Your task to perform on an android device: toggle data saver in the chrome app Image 0: 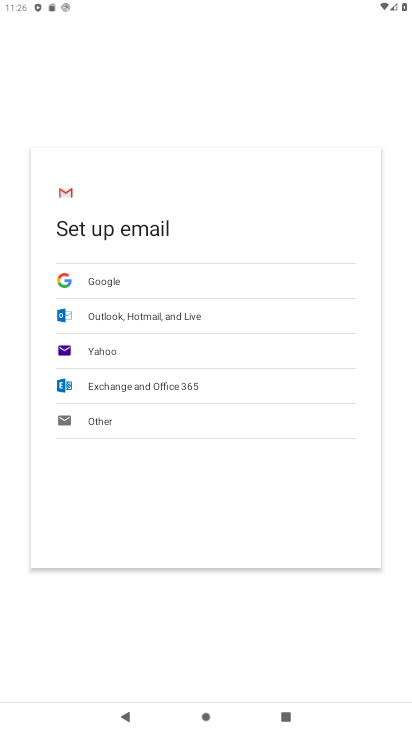
Step 0: press home button
Your task to perform on an android device: toggle data saver in the chrome app Image 1: 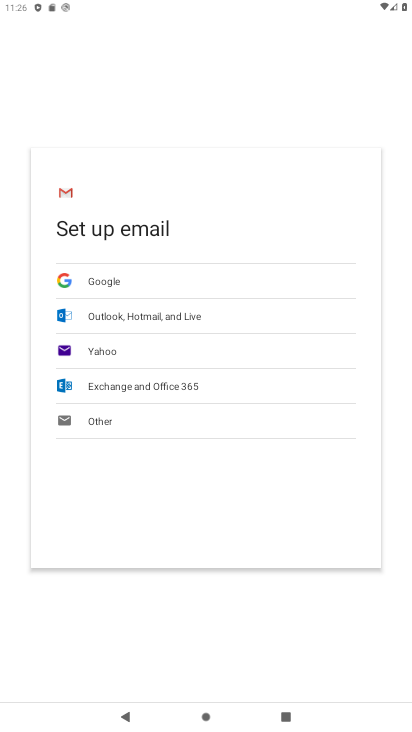
Step 1: press home button
Your task to perform on an android device: toggle data saver in the chrome app Image 2: 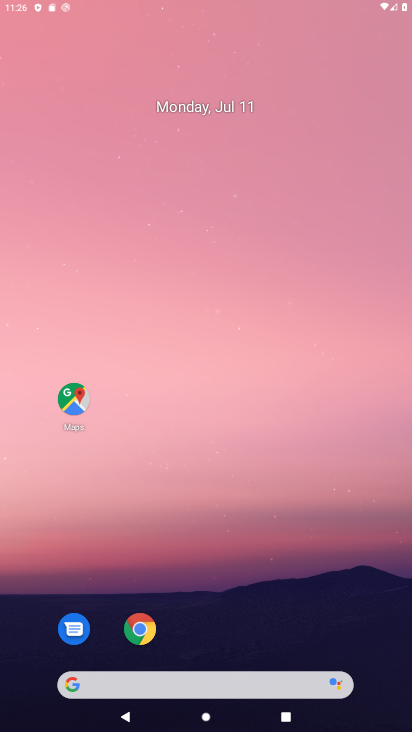
Step 2: press home button
Your task to perform on an android device: toggle data saver in the chrome app Image 3: 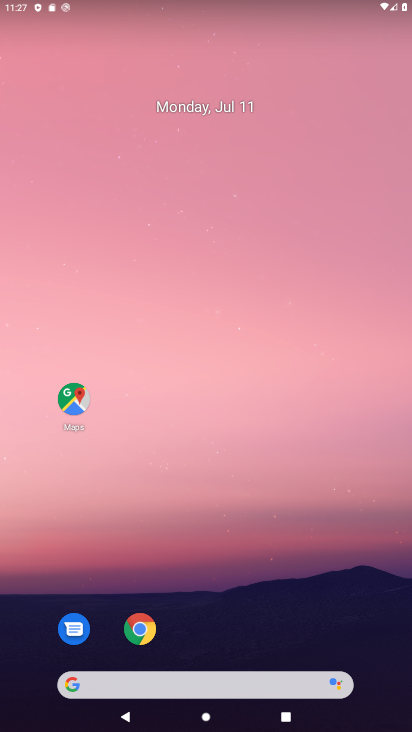
Step 3: drag from (282, 468) to (271, 181)
Your task to perform on an android device: toggle data saver in the chrome app Image 4: 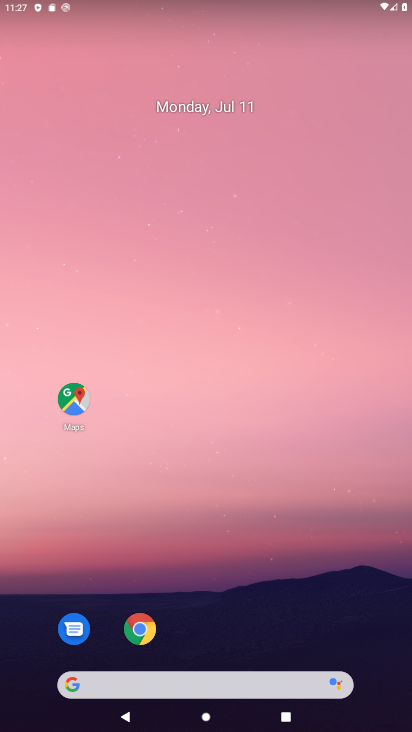
Step 4: drag from (229, 643) to (220, 583)
Your task to perform on an android device: toggle data saver in the chrome app Image 5: 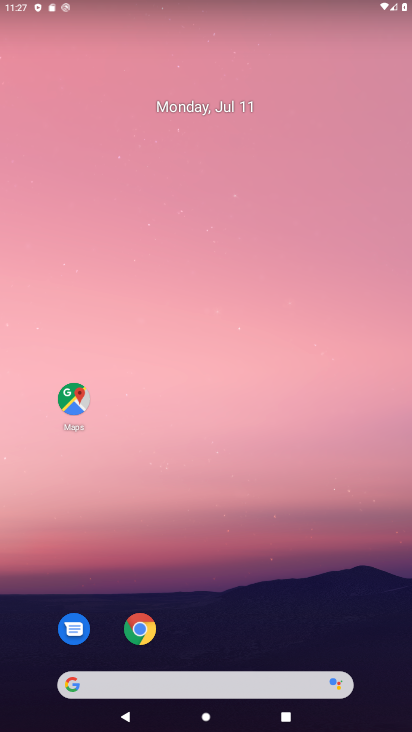
Step 5: click (127, 632)
Your task to perform on an android device: toggle data saver in the chrome app Image 6: 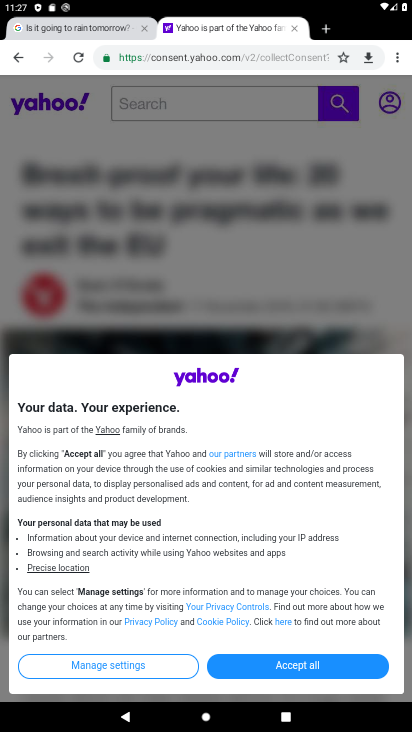
Step 6: click (238, 62)
Your task to perform on an android device: toggle data saver in the chrome app Image 7: 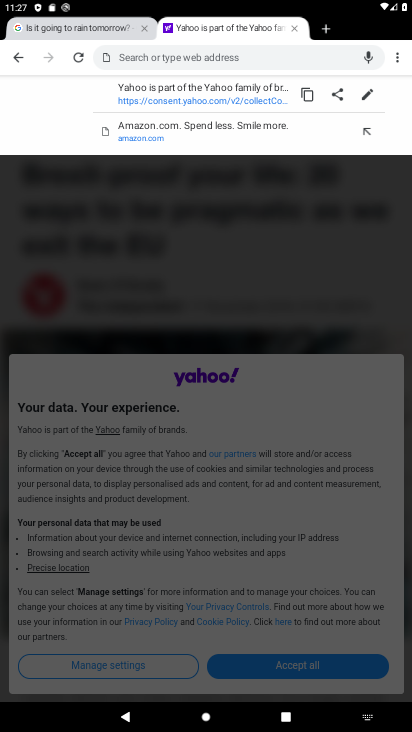
Step 7: click (229, 388)
Your task to perform on an android device: toggle data saver in the chrome app Image 8: 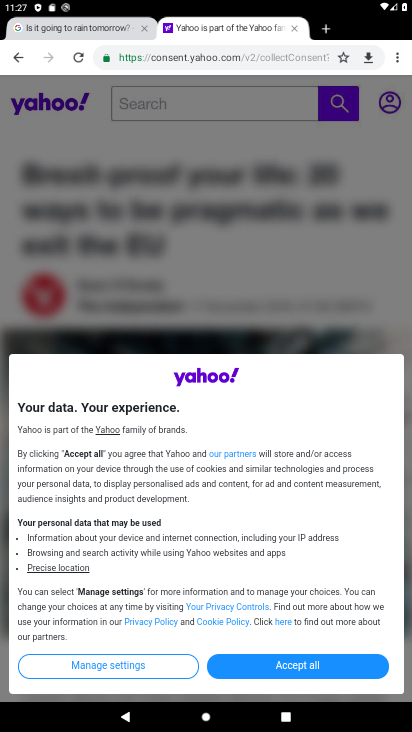
Step 8: drag from (411, 57) to (277, 412)
Your task to perform on an android device: toggle data saver in the chrome app Image 9: 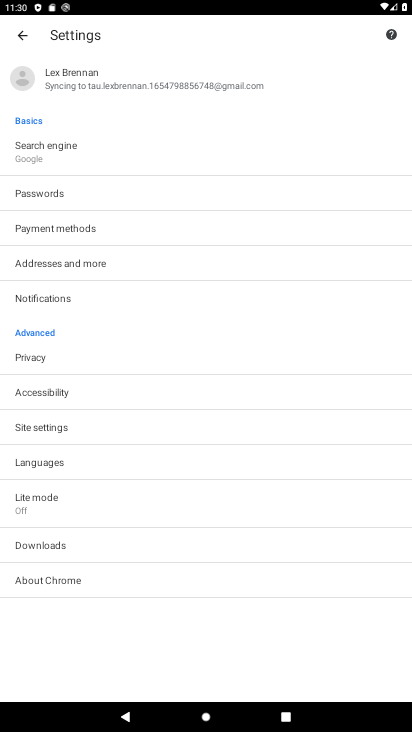
Step 9: click (45, 503)
Your task to perform on an android device: toggle data saver in the chrome app Image 10: 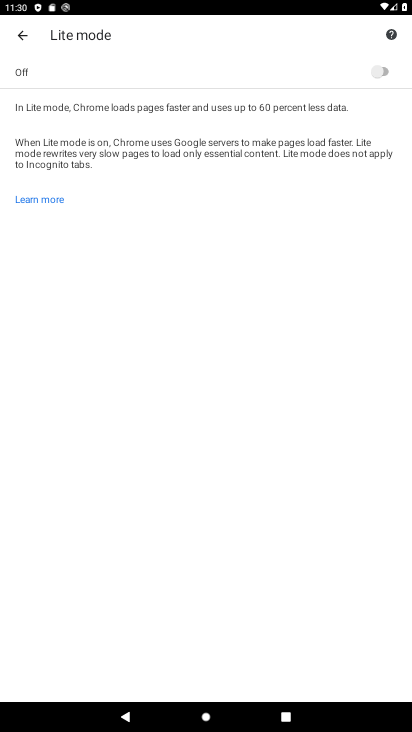
Step 10: click (197, 76)
Your task to perform on an android device: toggle data saver in the chrome app Image 11: 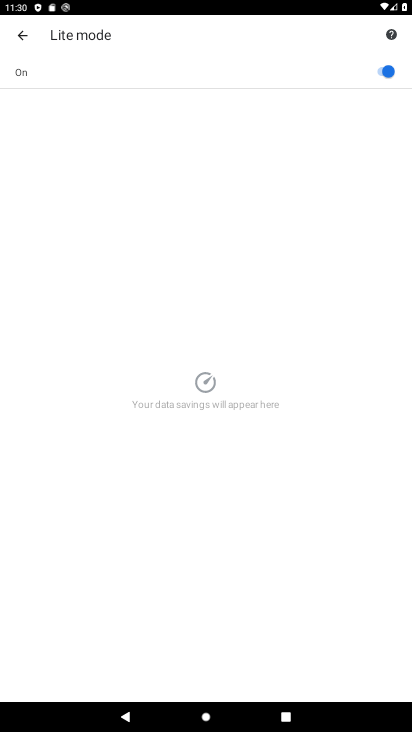
Step 11: task complete